Your task to perform on an android device: Open the Play Movies app and select the watchlist tab. Image 0: 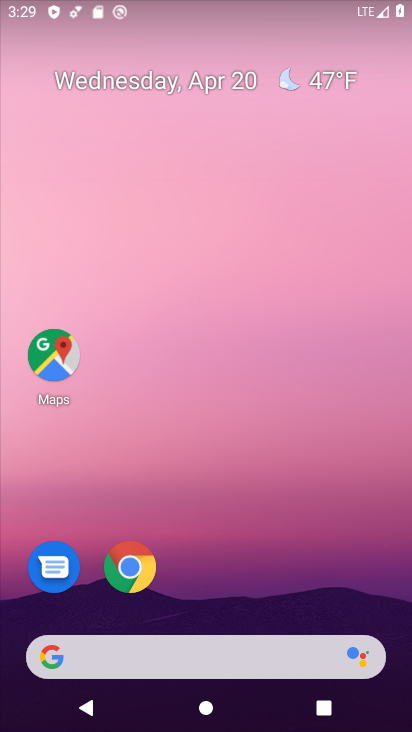
Step 0: press back button
Your task to perform on an android device: Open the Play Movies app and select the watchlist tab. Image 1: 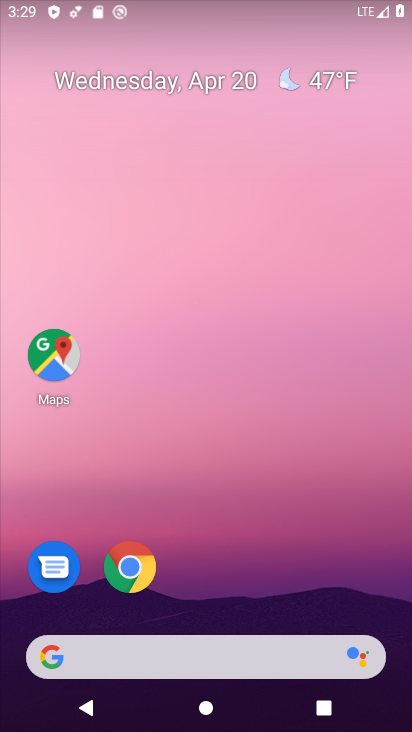
Step 1: drag from (353, 570) to (252, 8)
Your task to perform on an android device: Open the Play Movies app and select the watchlist tab. Image 2: 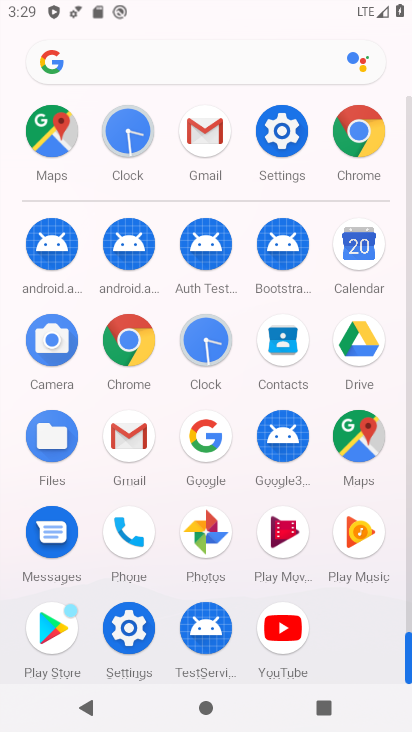
Step 2: click (279, 532)
Your task to perform on an android device: Open the Play Movies app and select the watchlist tab. Image 3: 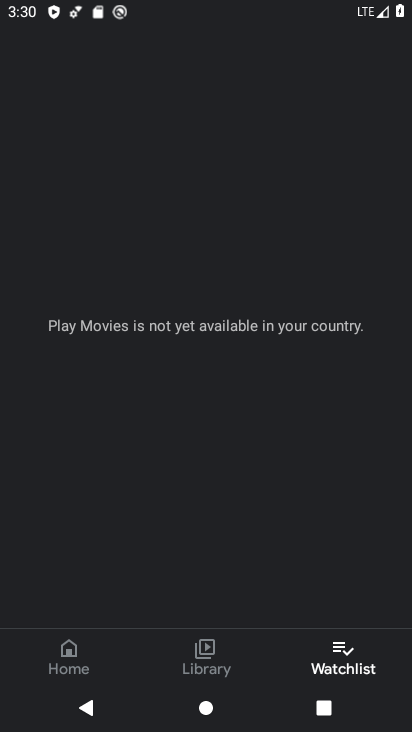
Step 3: task complete